Your task to perform on an android device: change the clock display to digital Image 0: 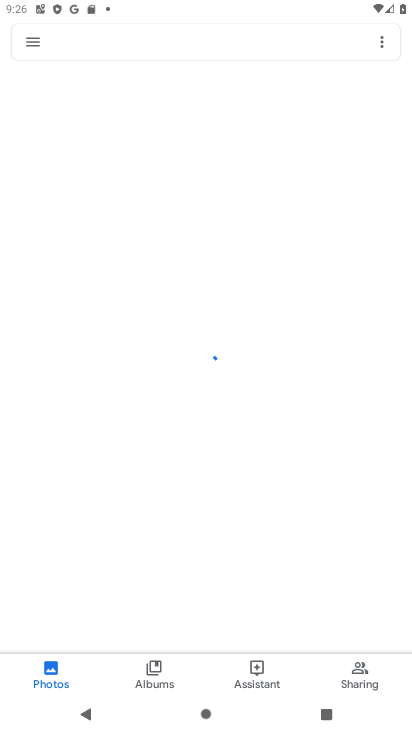
Step 0: press home button
Your task to perform on an android device: change the clock display to digital Image 1: 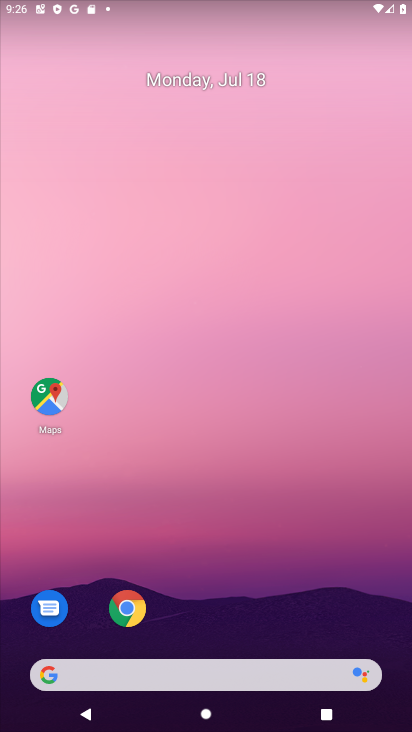
Step 1: drag from (184, 618) to (237, 50)
Your task to perform on an android device: change the clock display to digital Image 2: 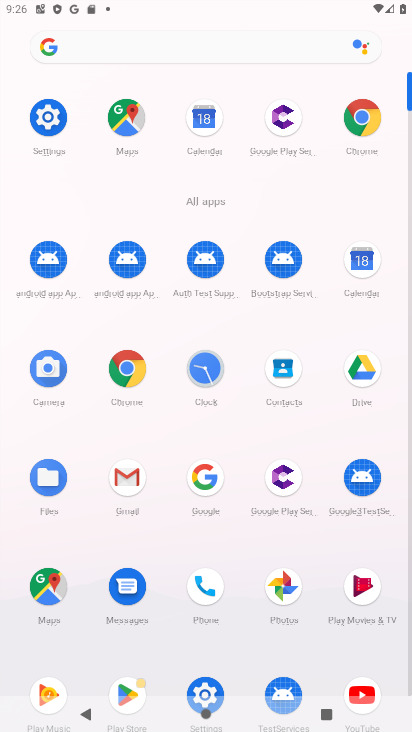
Step 2: click (55, 122)
Your task to perform on an android device: change the clock display to digital Image 3: 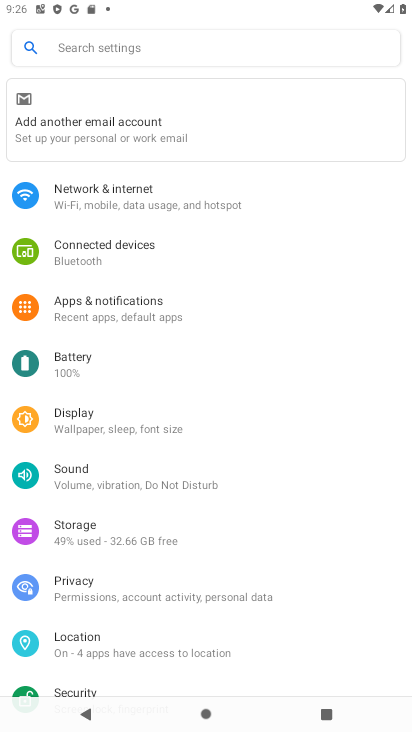
Step 3: click (97, 313)
Your task to perform on an android device: change the clock display to digital Image 4: 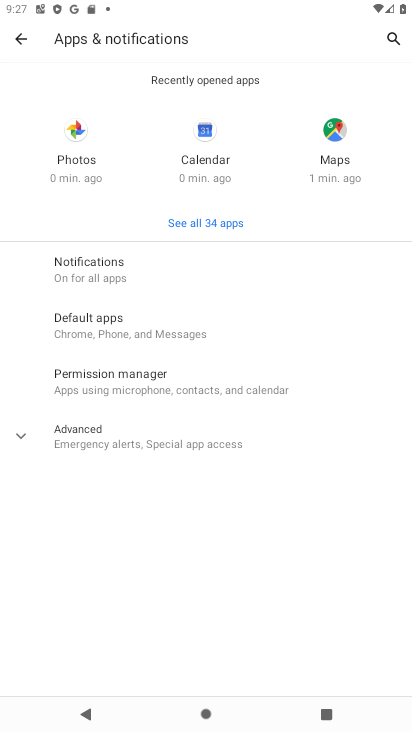
Step 4: click (79, 266)
Your task to perform on an android device: change the clock display to digital Image 5: 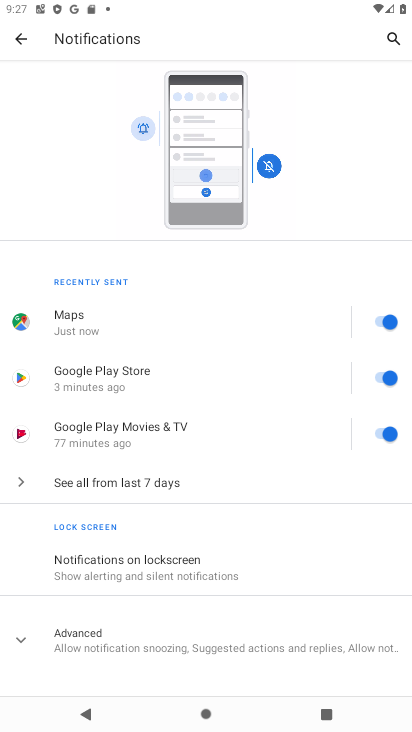
Step 5: task complete